Your task to perform on an android device: change the upload size in google photos Image 0: 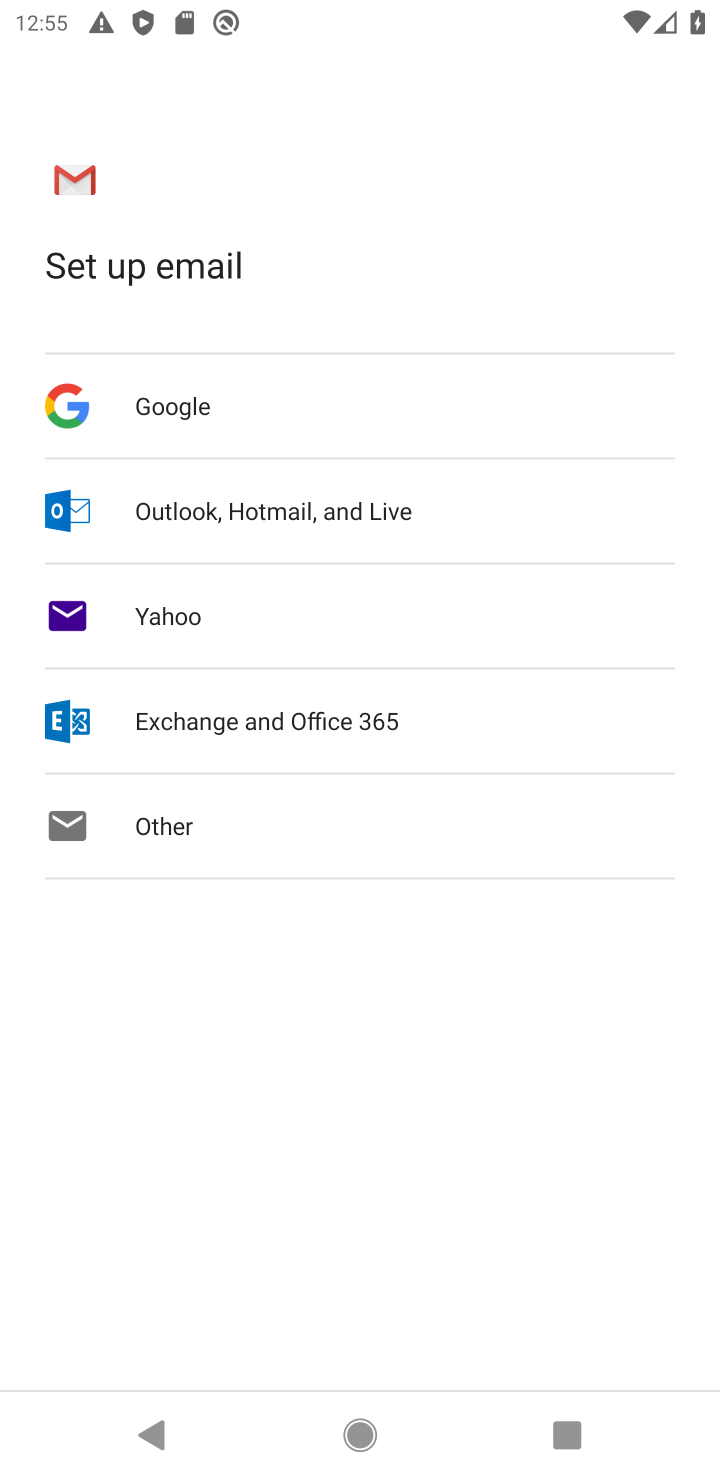
Step 0: press home button
Your task to perform on an android device: change the upload size in google photos Image 1: 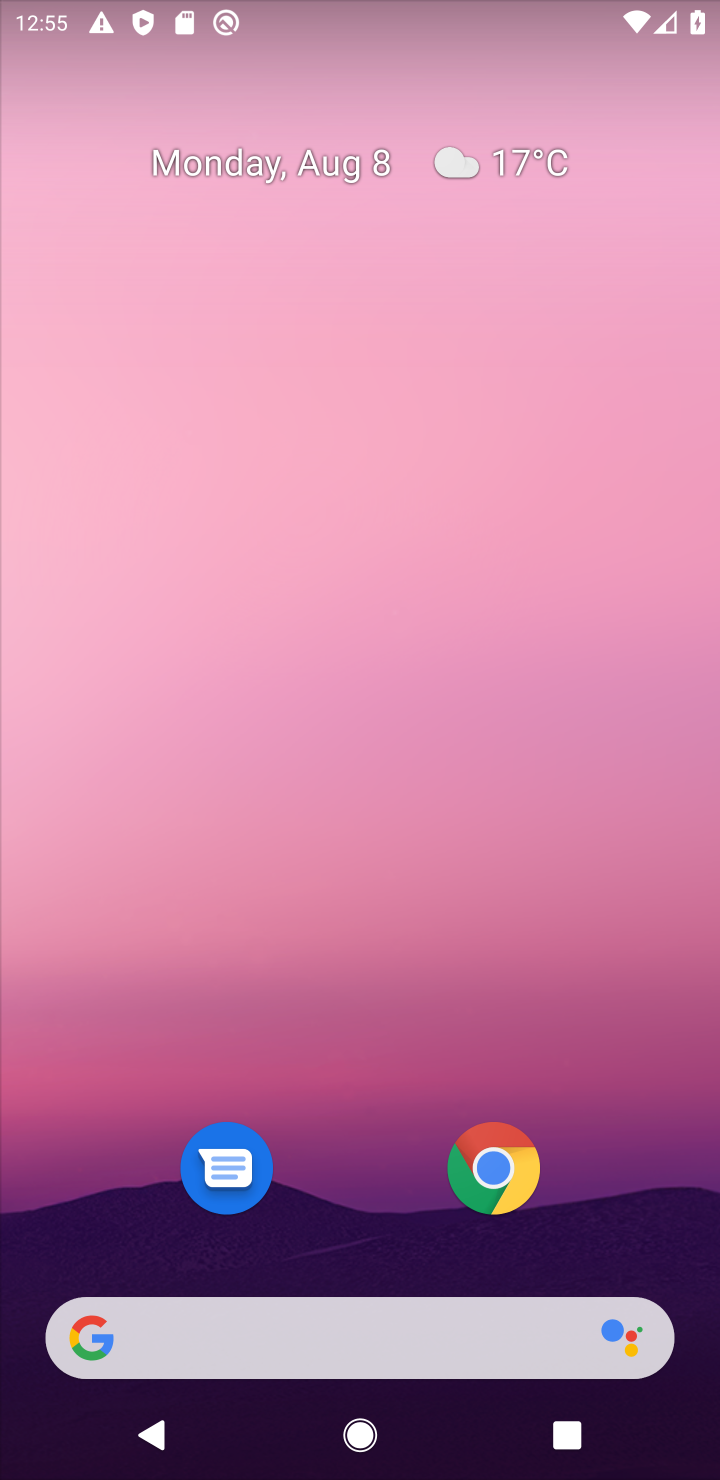
Step 1: drag from (96, 1261) to (271, 277)
Your task to perform on an android device: change the upload size in google photos Image 2: 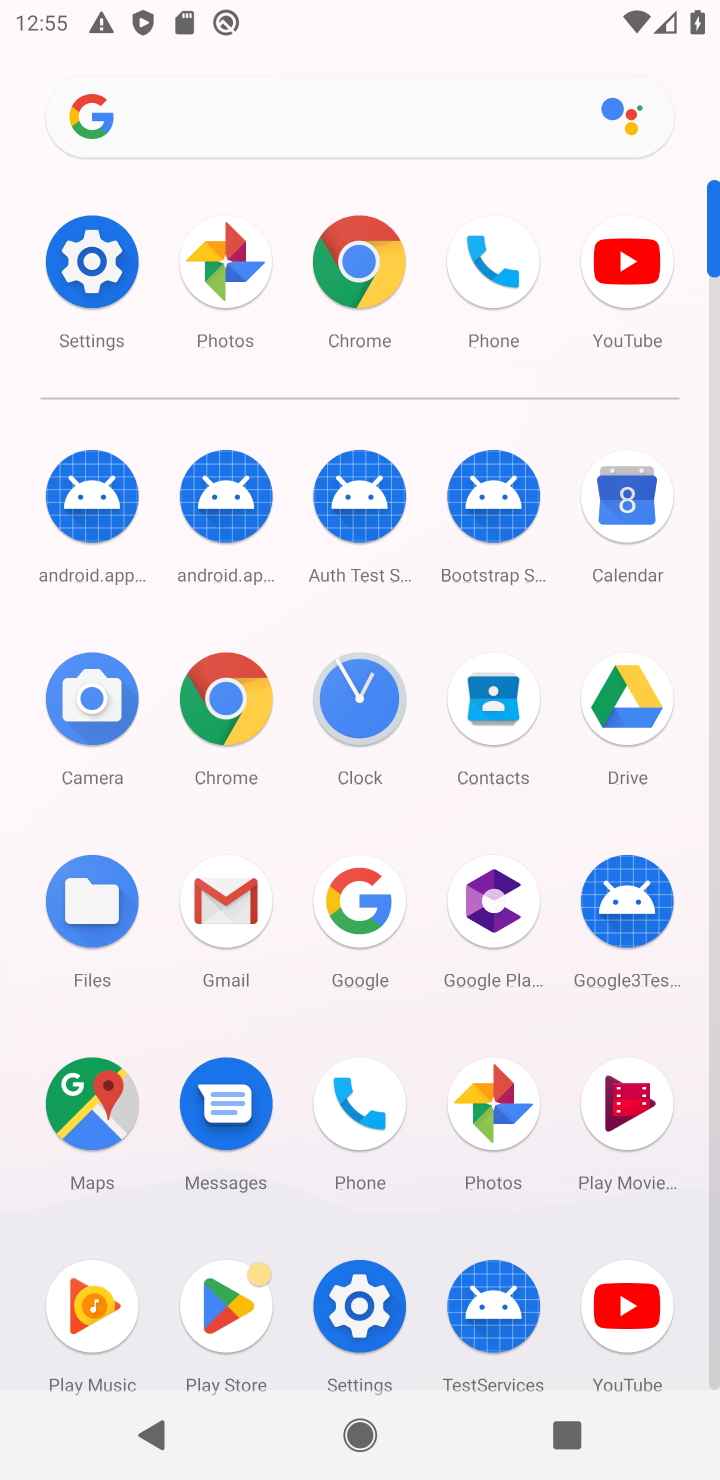
Step 2: click (519, 1085)
Your task to perform on an android device: change the upload size in google photos Image 3: 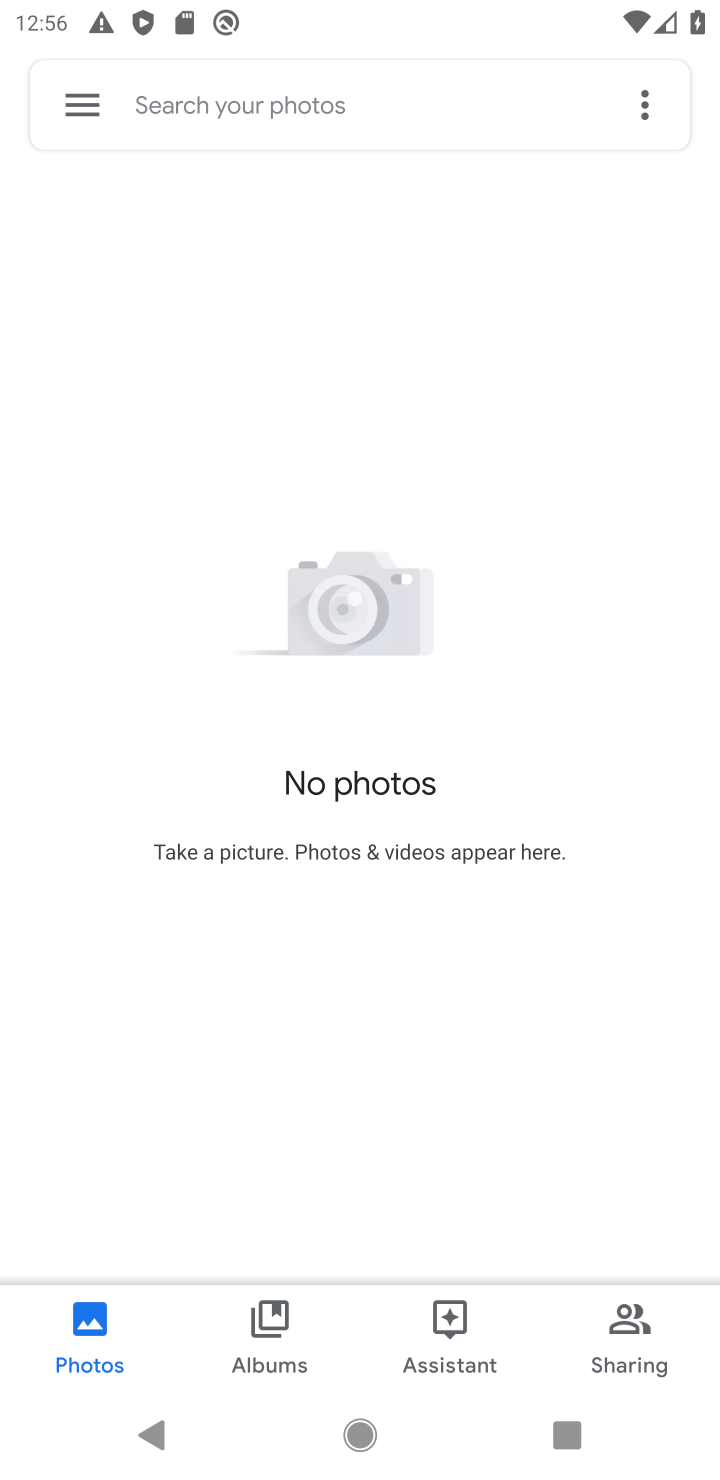
Step 3: click (100, 112)
Your task to perform on an android device: change the upload size in google photos Image 4: 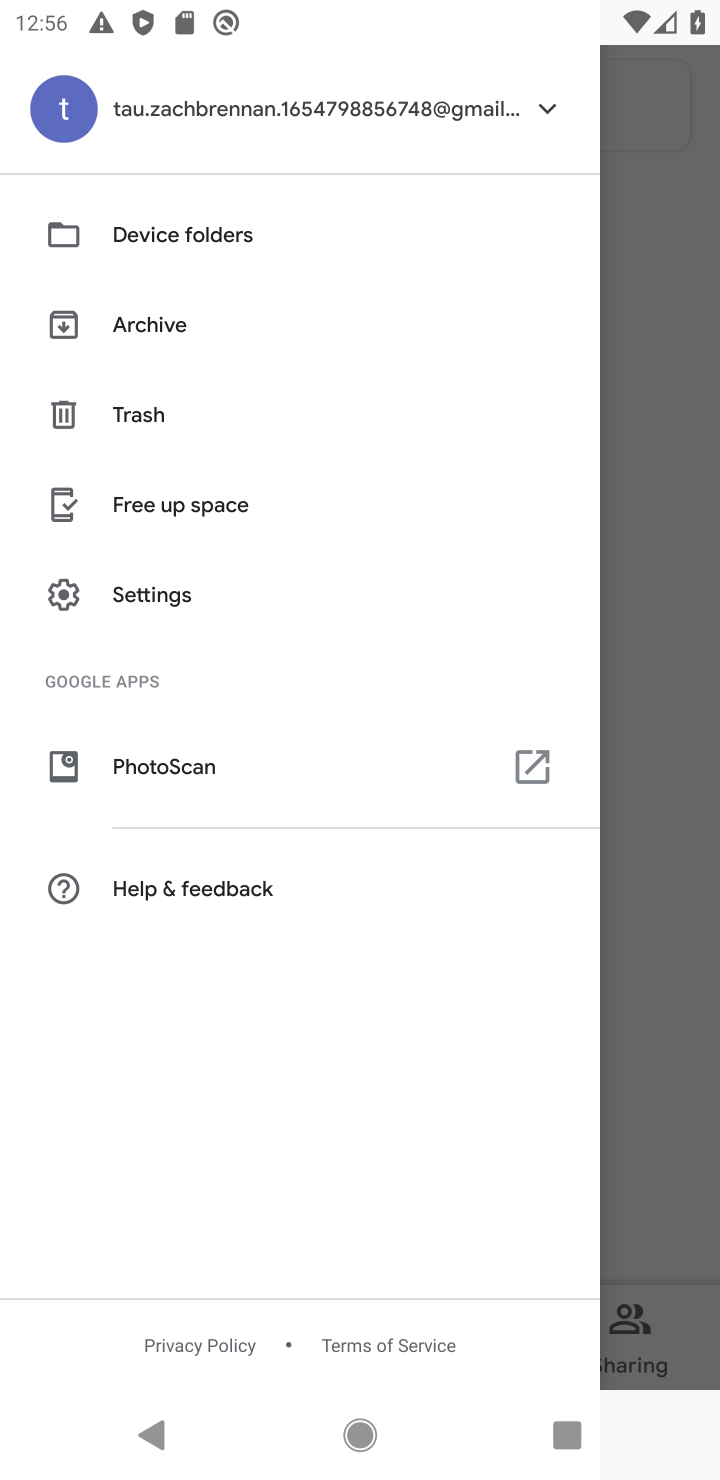
Step 4: click (149, 591)
Your task to perform on an android device: change the upload size in google photos Image 5: 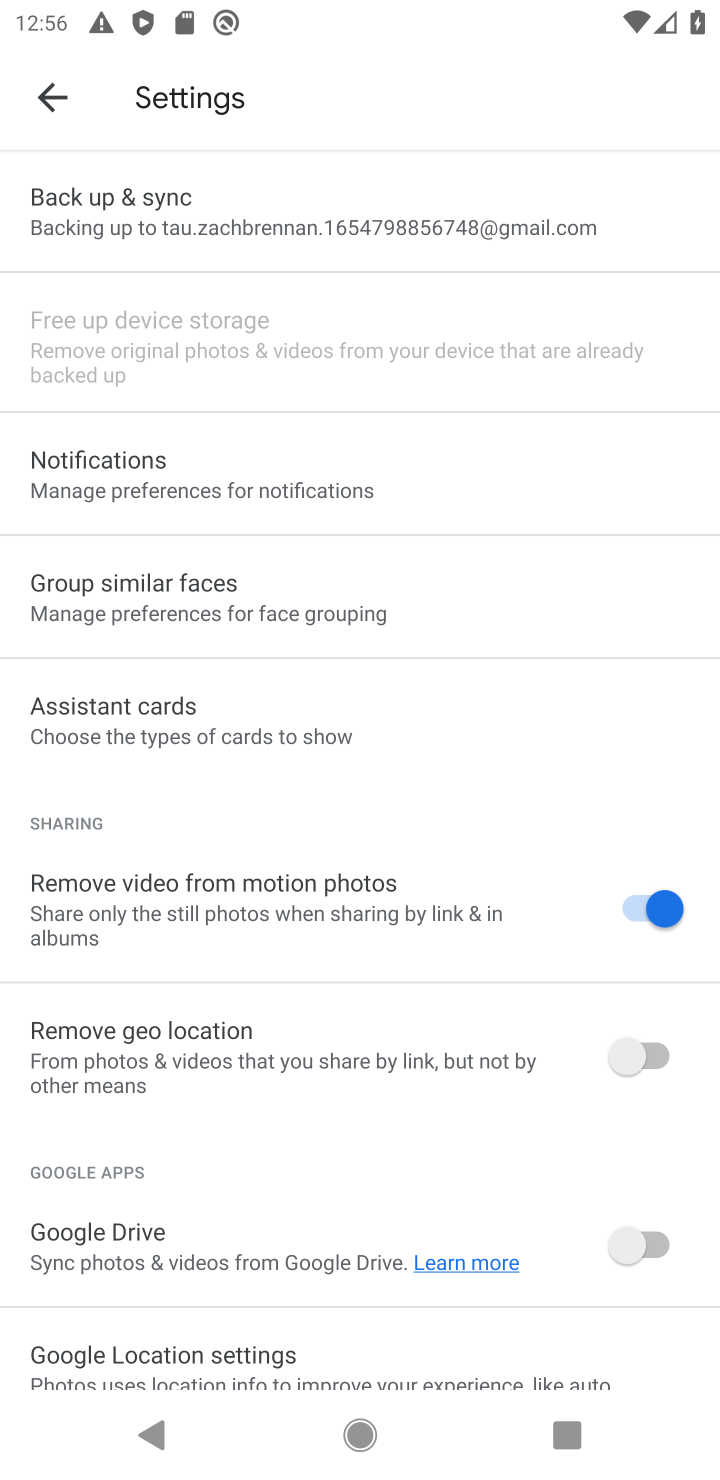
Step 5: drag from (513, 776) to (583, 0)
Your task to perform on an android device: change the upload size in google photos Image 6: 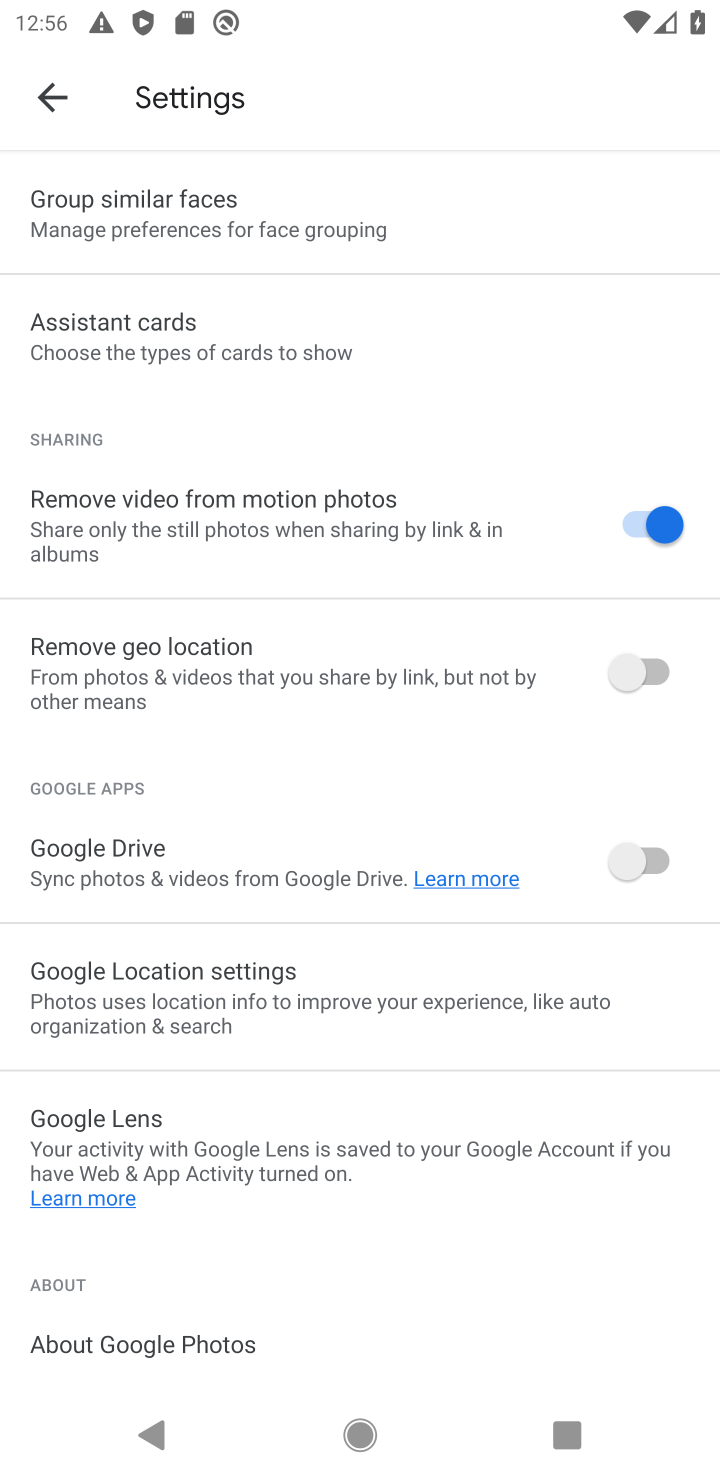
Step 6: drag from (500, 200) to (541, 1281)
Your task to perform on an android device: change the upload size in google photos Image 7: 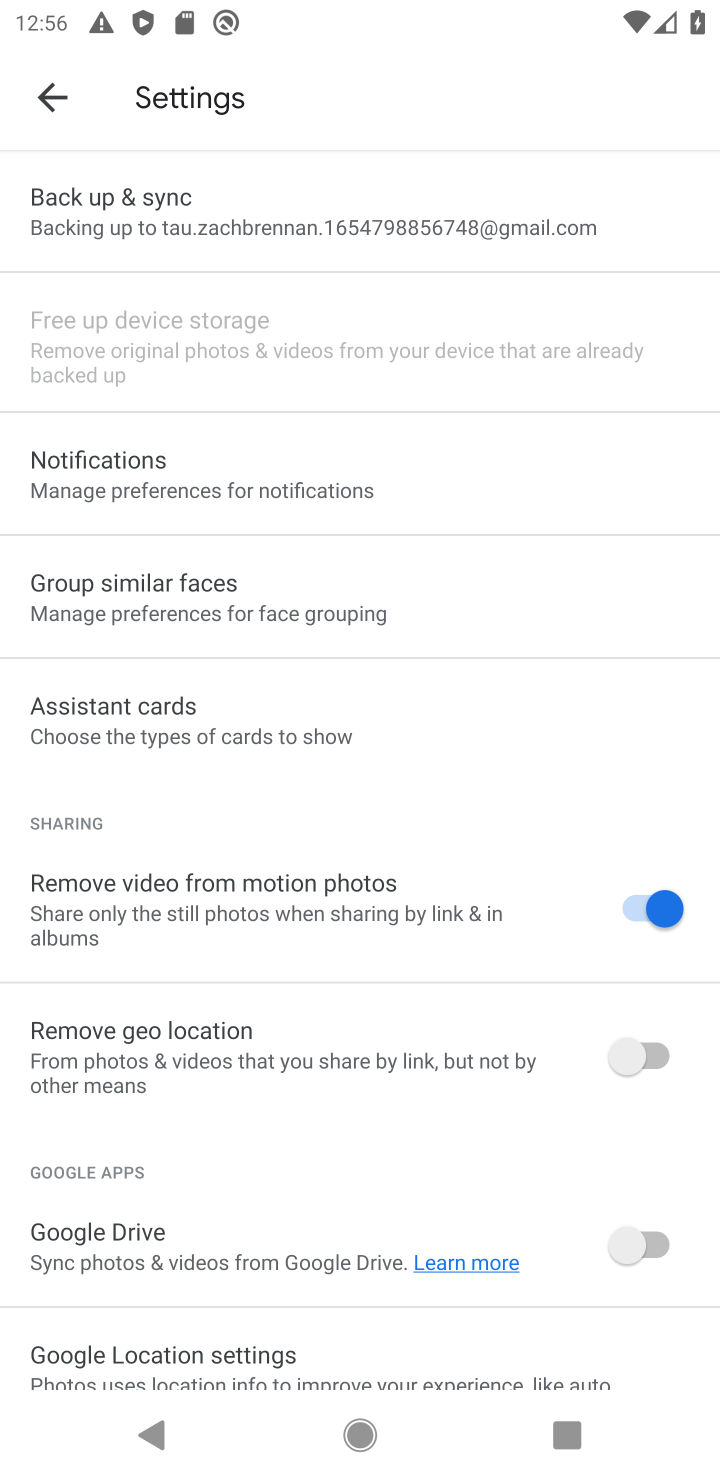
Step 7: click (97, 479)
Your task to perform on an android device: change the upload size in google photos Image 8: 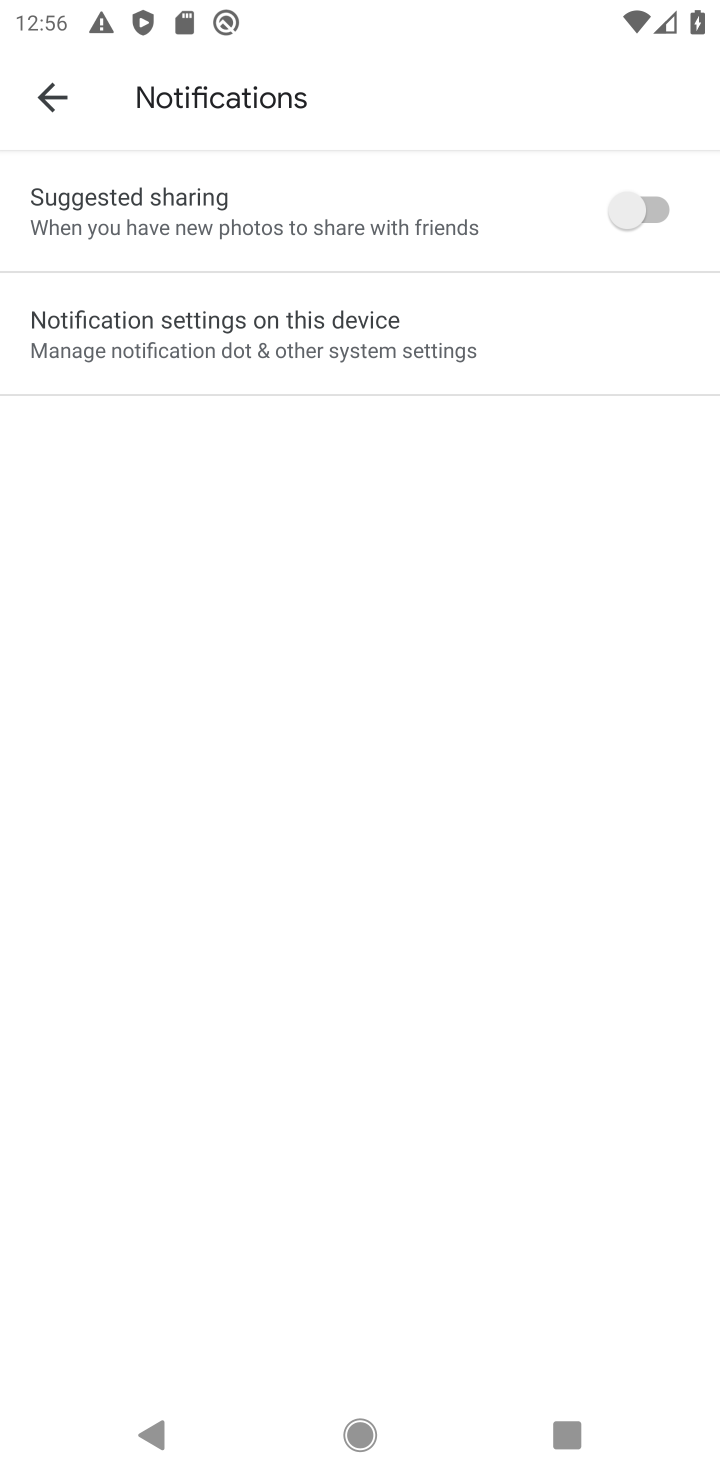
Step 8: click (155, 332)
Your task to perform on an android device: change the upload size in google photos Image 9: 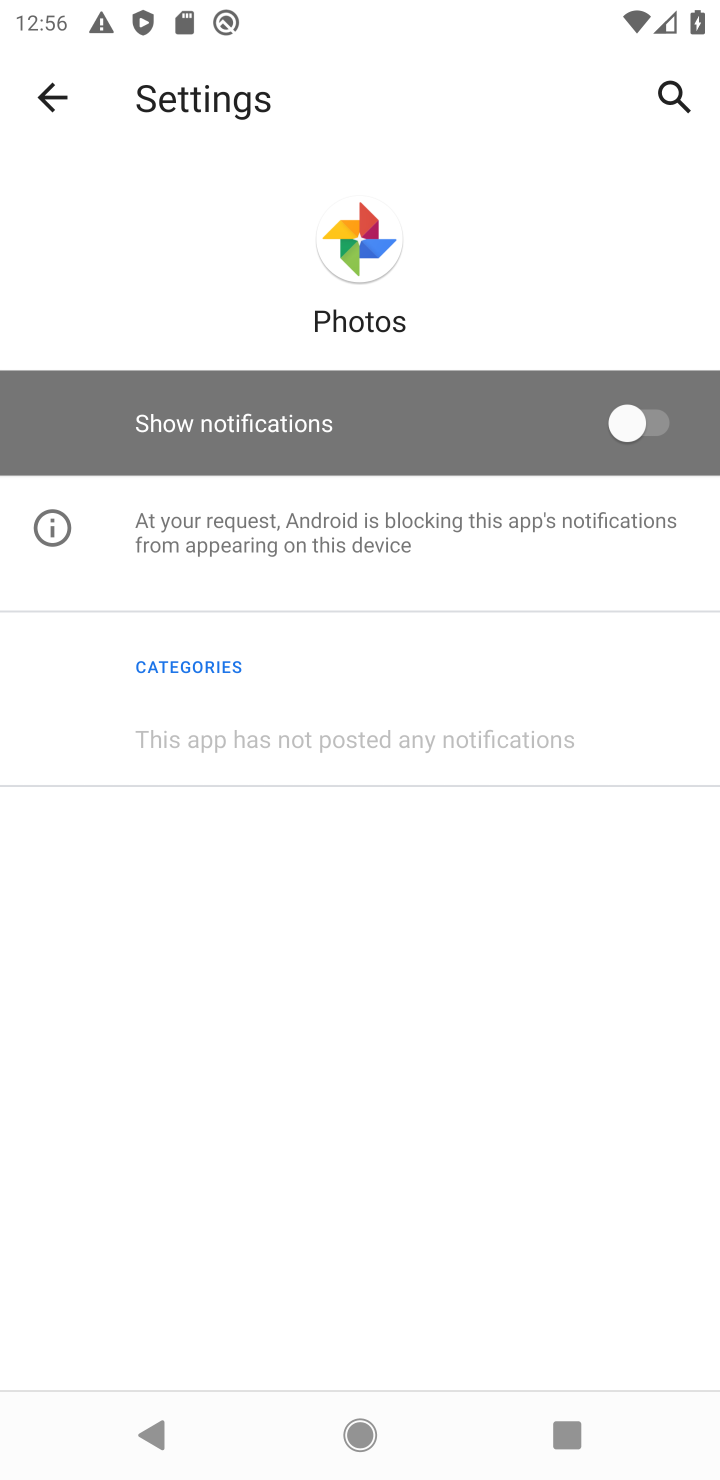
Step 9: click (61, 88)
Your task to perform on an android device: change the upload size in google photos Image 10: 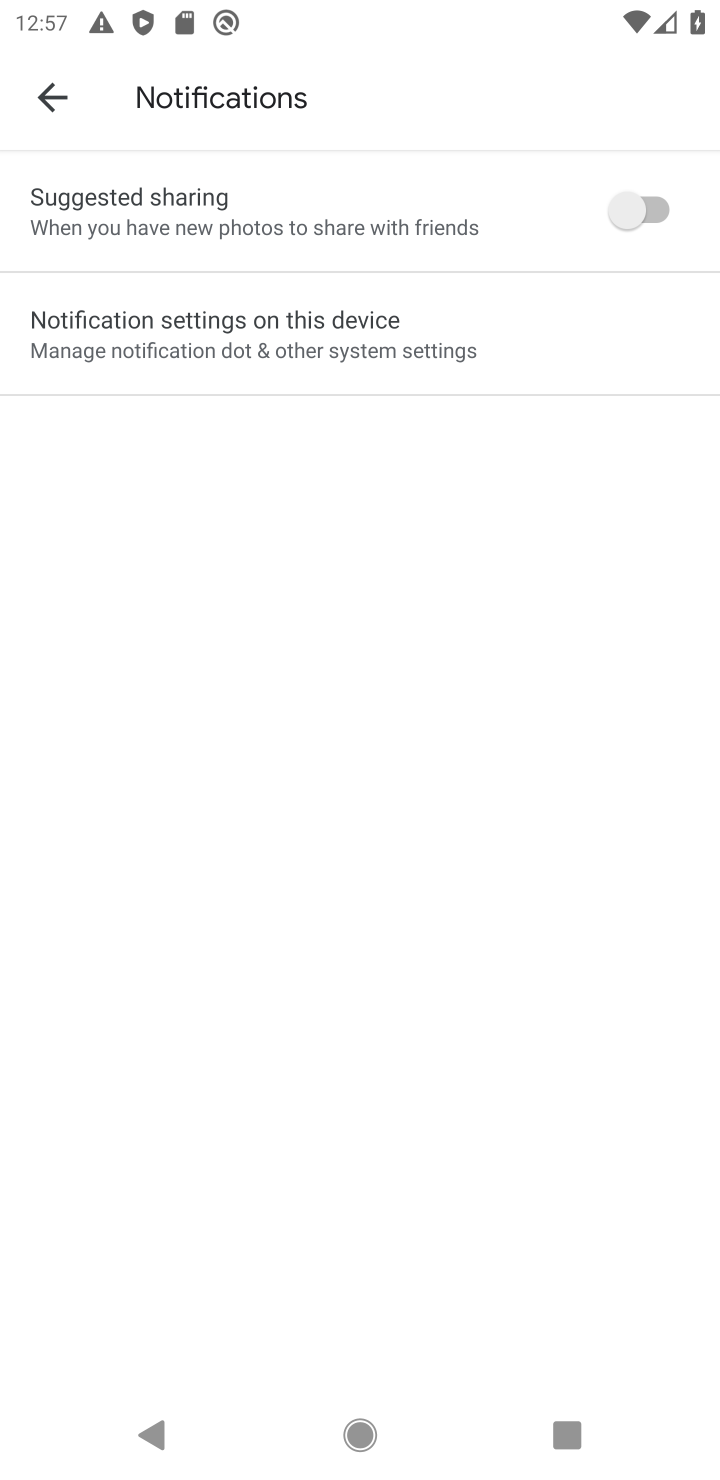
Step 10: click (61, 88)
Your task to perform on an android device: change the upload size in google photos Image 11: 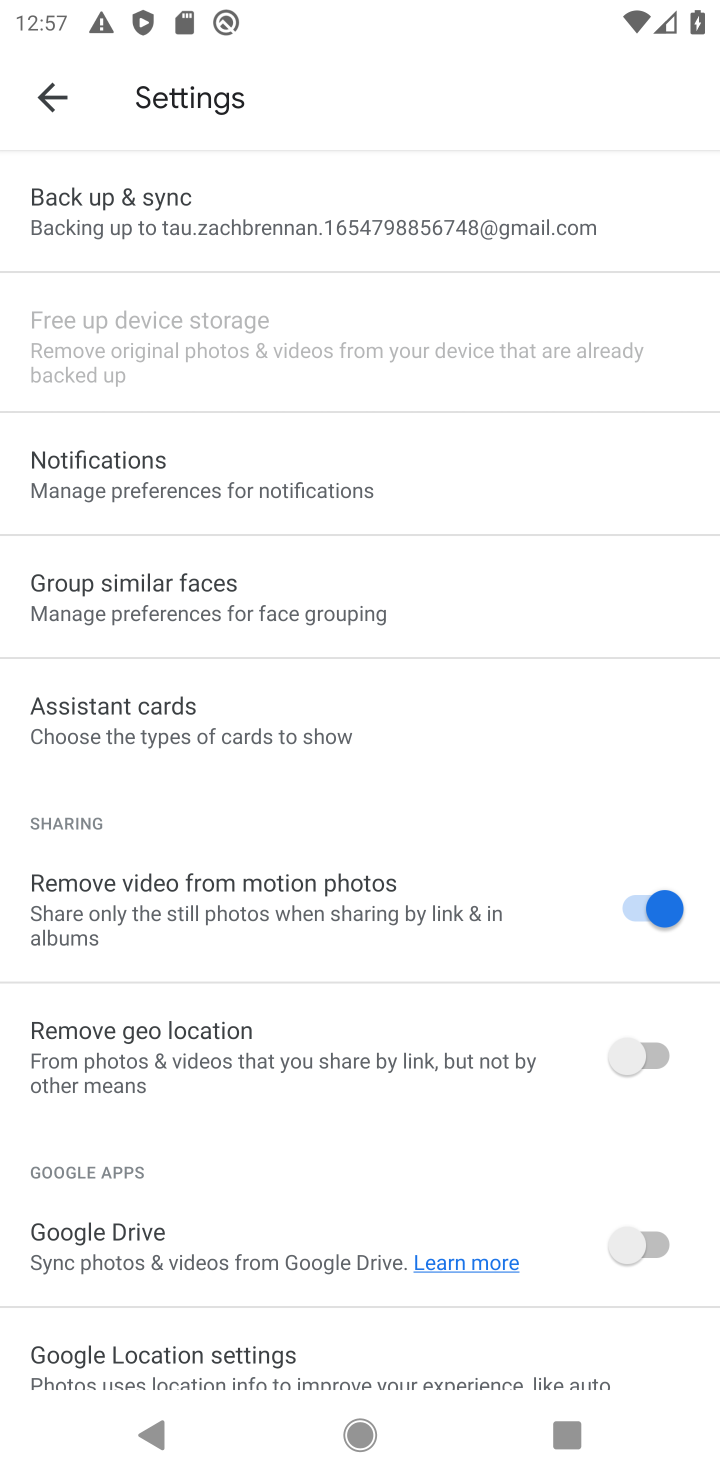
Step 11: task complete